Your task to perform on an android device: Show the shopping cart on bestbuy.com. Search for "acer predator" on bestbuy.com, select the first entry, add it to the cart, then select checkout. Image 0: 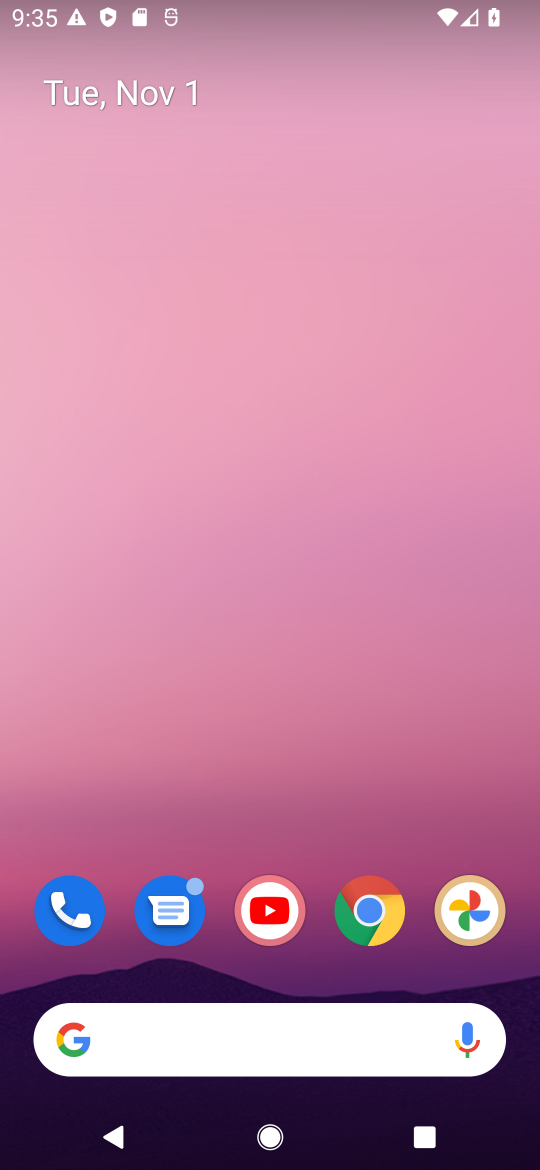
Step 0: click (371, 921)
Your task to perform on an android device: Show the shopping cart on bestbuy.com. Search for "acer predator" on bestbuy.com, select the first entry, add it to the cart, then select checkout. Image 1: 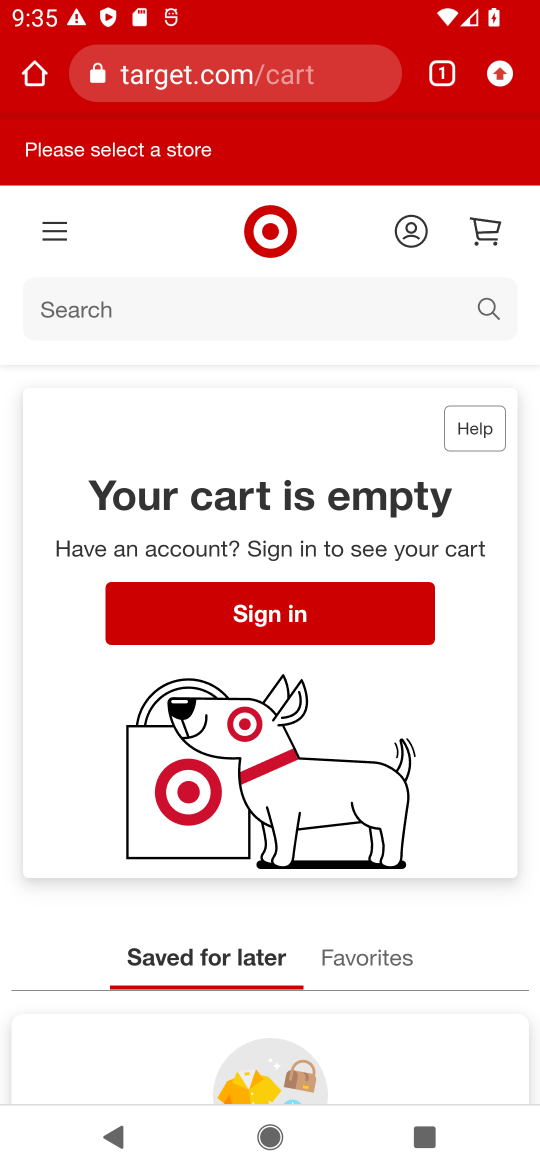
Step 1: click (264, 85)
Your task to perform on an android device: Show the shopping cart on bestbuy.com. Search for "acer predator" on bestbuy.com, select the first entry, add it to the cart, then select checkout. Image 2: 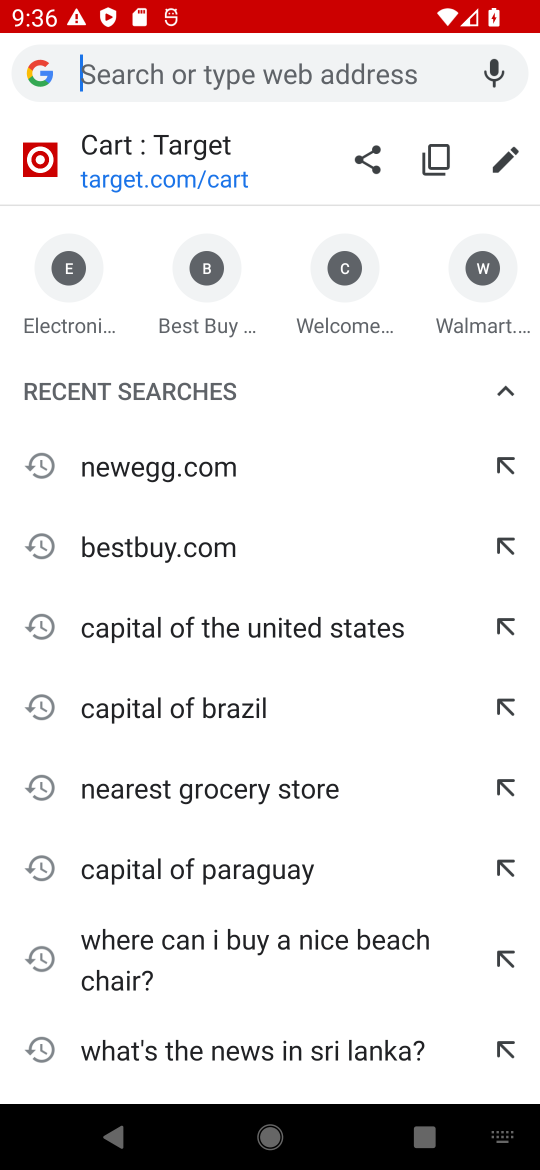
Step 2: type "bestbuy.com"
Your task to perform on an android device: Show the shopping cart on bestbuy.com. Search for "acer predator" on bestbuy.com, select the first entry, add it to the cart, then select checkout. Image 3: 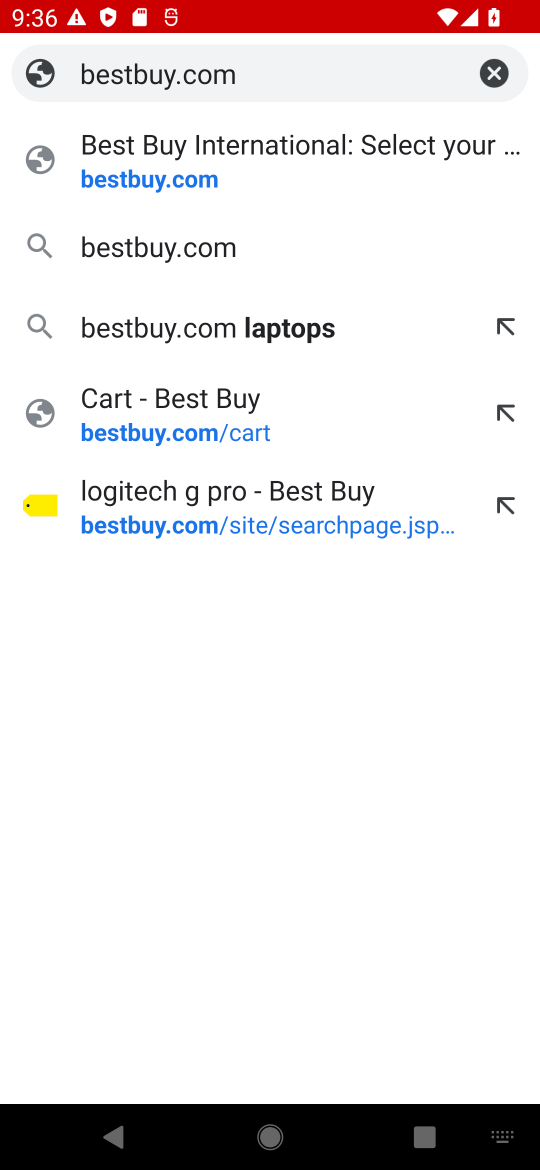
Step 3: click (90, 180)
Your task to perform on an android device: Show the shopping cart on bestbuy.com. Search for "acer predator" on bestbuy.com, select the first entry, add it to the cart, then select checkout. Image 4: 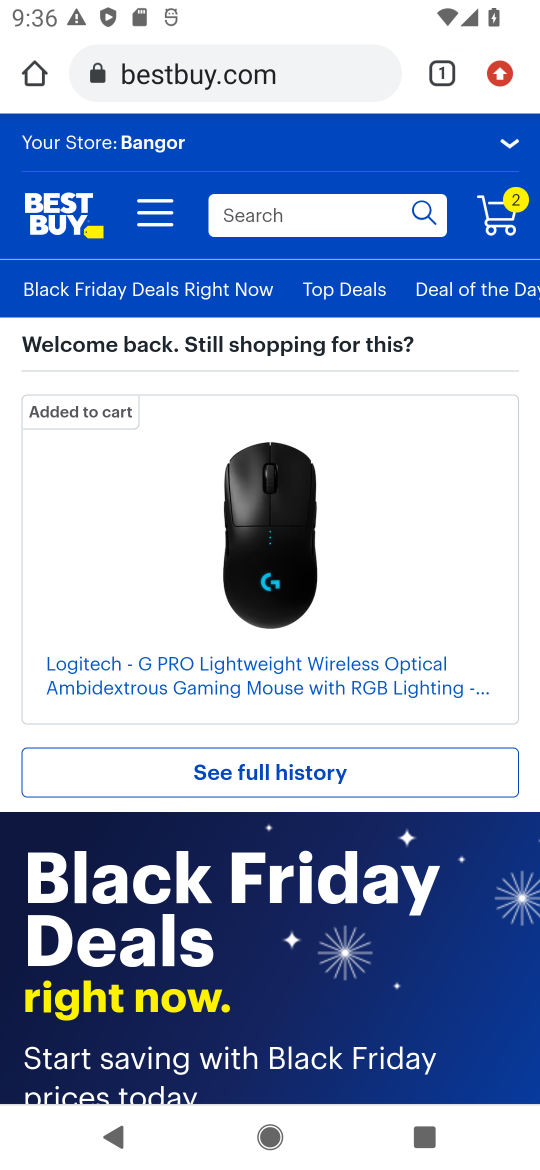
Step 4: click (503, 225)
Your task to perform on an android device: Show the shopping cart on bestbuy.com. Search for "acer predator" on bestbuy.com, select the first entry, add it to the cart, then select checkout. Image 5: 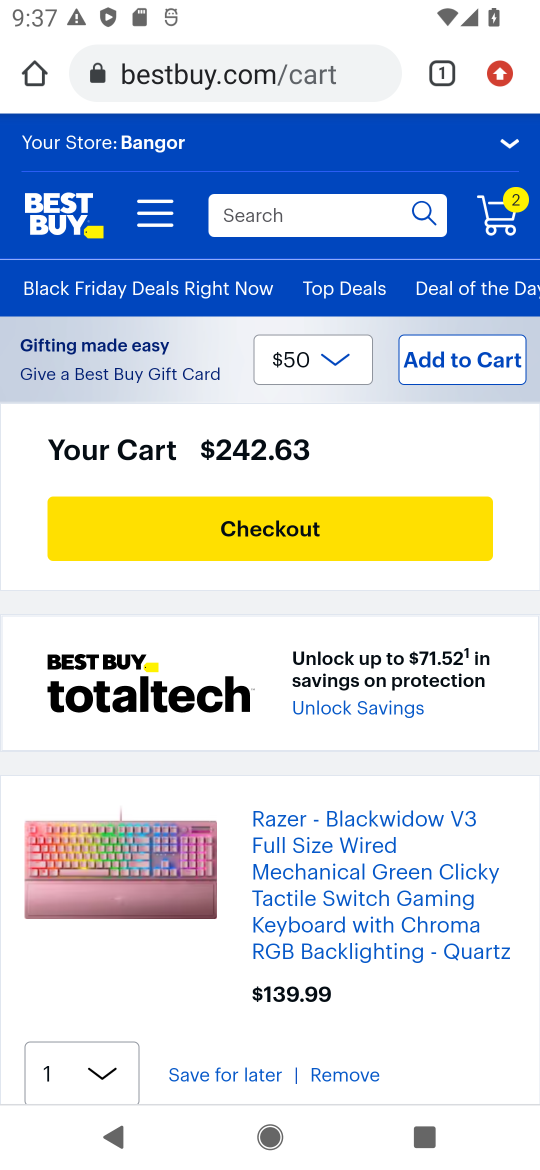
Step 5: click (356, 214)
Your task to perform on an android device: Show the shopping cart on bestbuy.com. Search for "acer predator" on bestbuy.com, select the first entry, add it to the cart, then select checkout. Image 6: 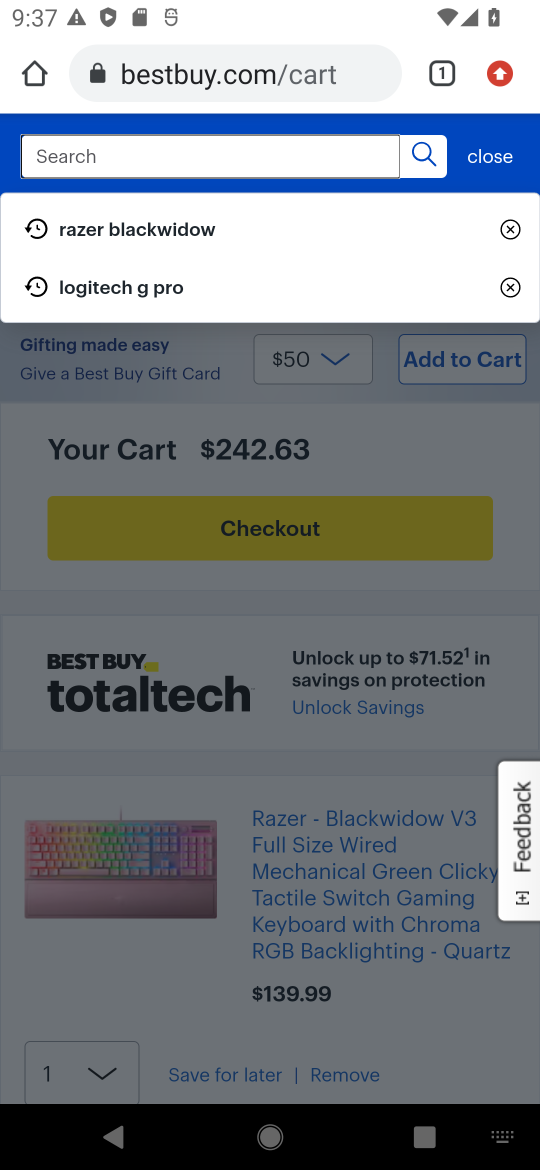
Step 6: type "acer predator"
Your task to perform on an android device: Show the shopping cart on bestbuy.com. Search for "acer predator" on bestbuy.com, select the first entry, add it to the cart, then select checkout. Image 7: 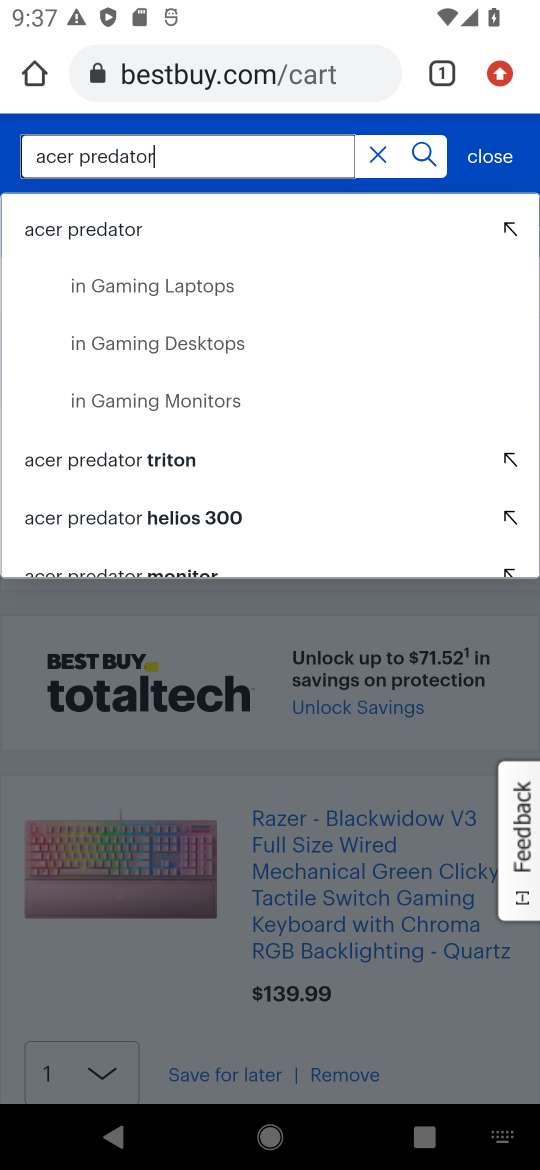
Step 7: click (87, 230)
Your task to perform on an android device: Show the shopping cart on bestbuy.com. Search for "acer predator" on bestbuy.com, select the first entry, add it to the cart, then select checkout. Image 8: 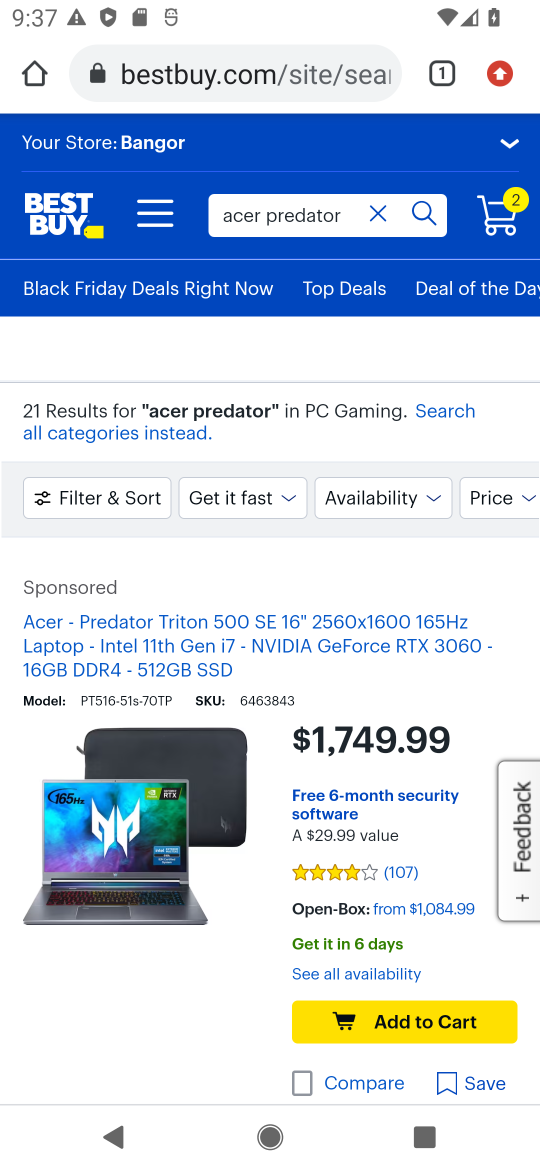
Step 8: click (371, 1014)
Your task to perform on an android device: Show the shopping cart on bestbuy.com. Search for "acer predator" on bestbuy.com, select the first entry, add it to the cart, then select checkout. Image 9: 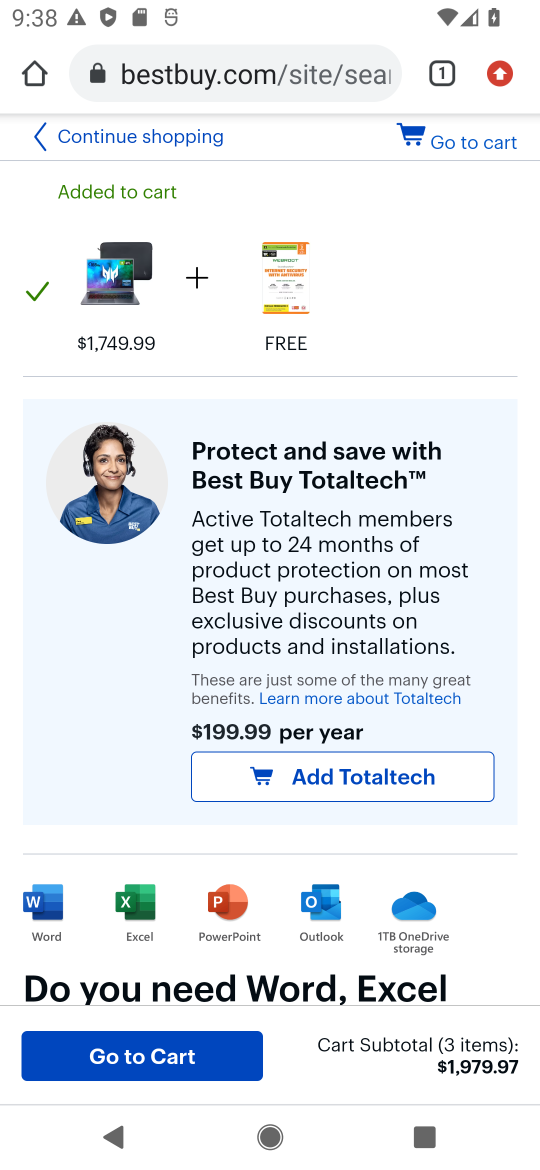
Step 9: click (152, 1055)
Your task to perform on an android device: Show the shopping cart on bestbuy.com. Search for "acer predator" on bestbuy.com, select the first entry, add it to the cart, then select checkout. Image 10: 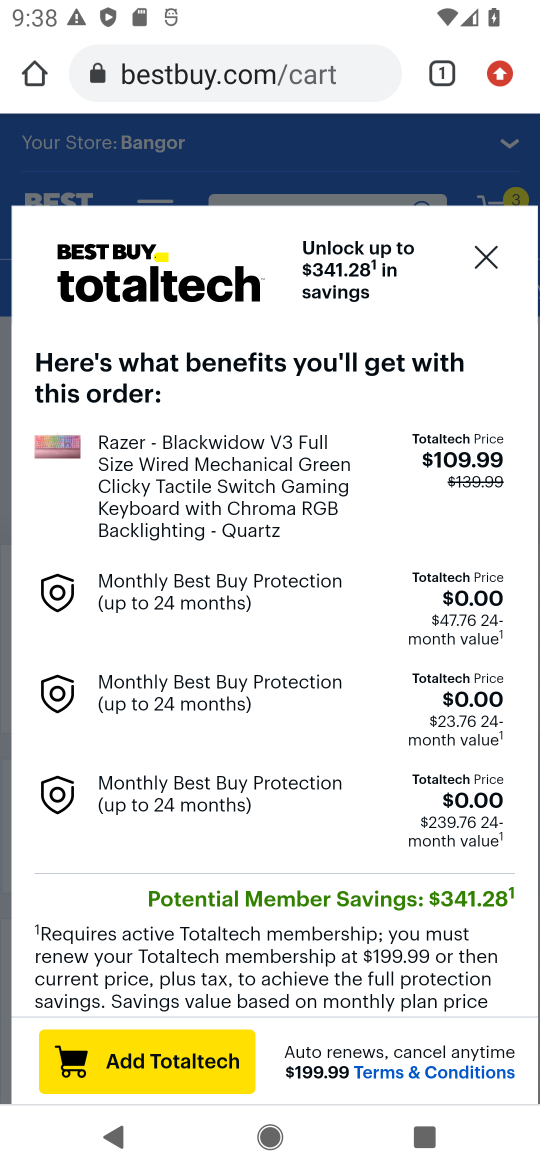
Step 10: click (481, 252)
Your task to perform on an android device: Show the shopping cart on bestbuy.com. Search for "acer predator" on bestbuy.com, select the first entry, add it to the cart, then select checkout. Image 11: 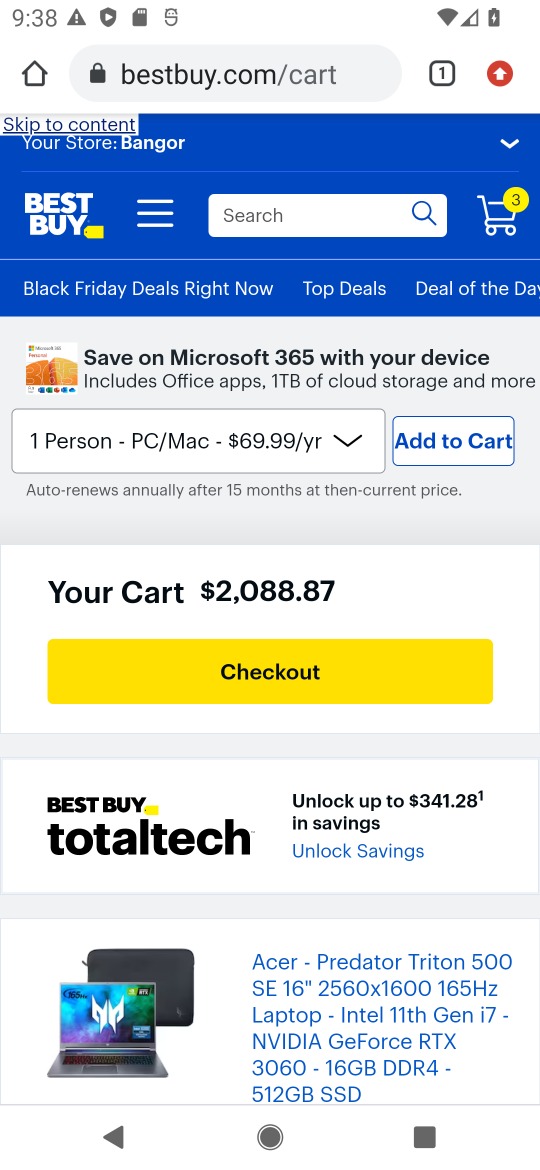
Step 11: click (286, 657)
Your task to perform on an android device: Show the shopping cart on bestbuy.com. Search for "acer predator" on bestbuy.com, select the first entry, add it to the cart, then select checkout. Image 12: 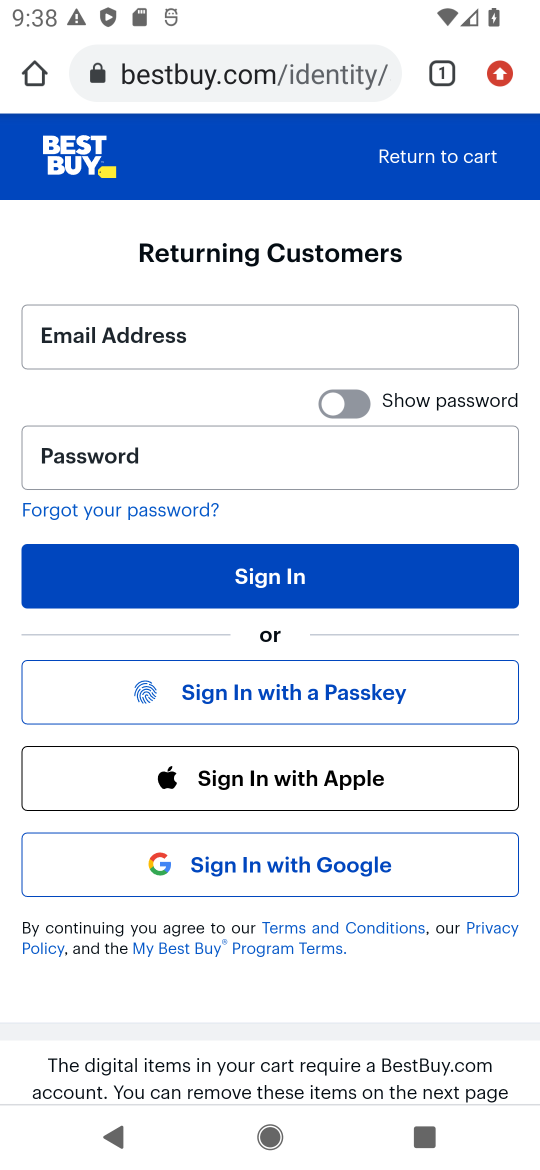
Step 12: task complete